Your task to perform on an android device: toggle translation in the chrome app Image 0: 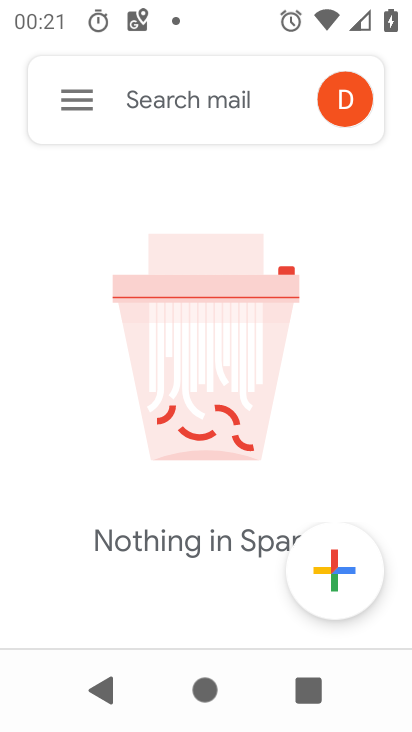
Step 0: press home button
Your task to perform on an android device: toggle translation in the chrome app Image 1: 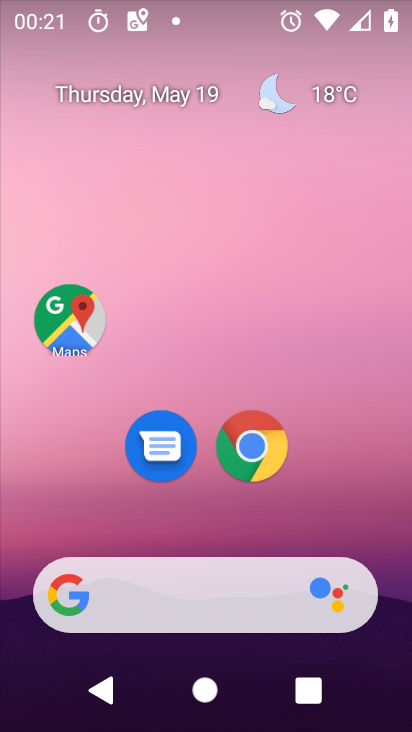
Step 1: click (244, 451)
Your task to perform on an android device: toggle translation in the chrome app Image 2: 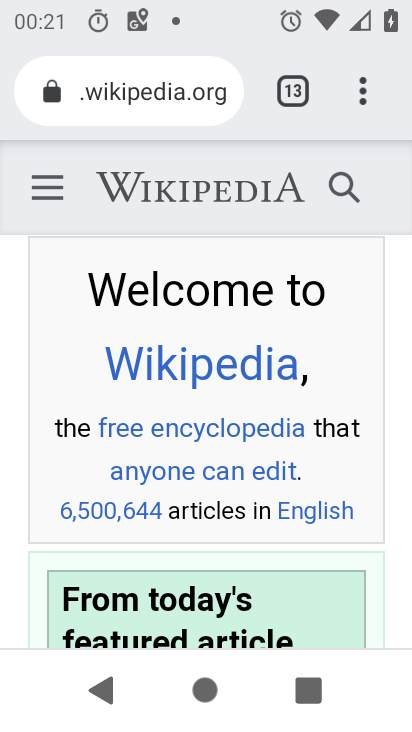
Step 2: drag from (362, 100) to (233, 485)
Your task to perform on an android device: toggle translation in the chrome app Image 3: 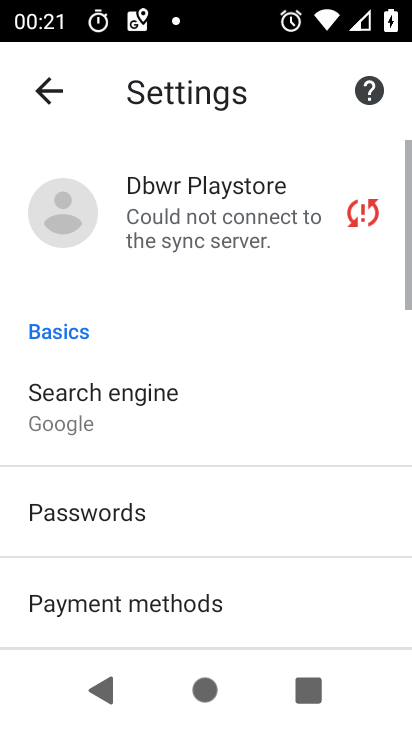
Step 3: drag from (237, 611) to (328, 295)
Your task to perform on an android device: toggle translation in the chrome app Image 4: 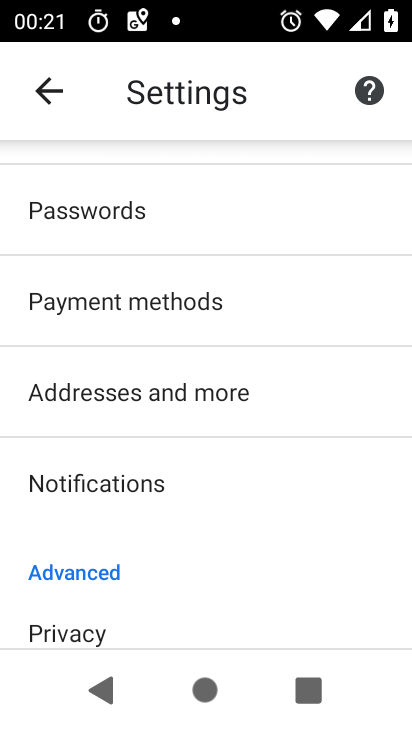
Step 4: drag from (182, 580) to (345, 88)
Your task to perform on an android device: toggle translation in the chrome app Image 5: 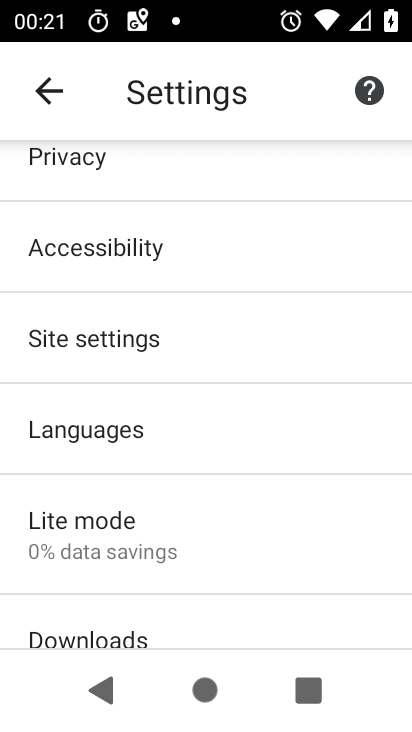
Step 5: click (139, 442)
Your task to perform on an android device: toggle translation in the chrome app Image 6: 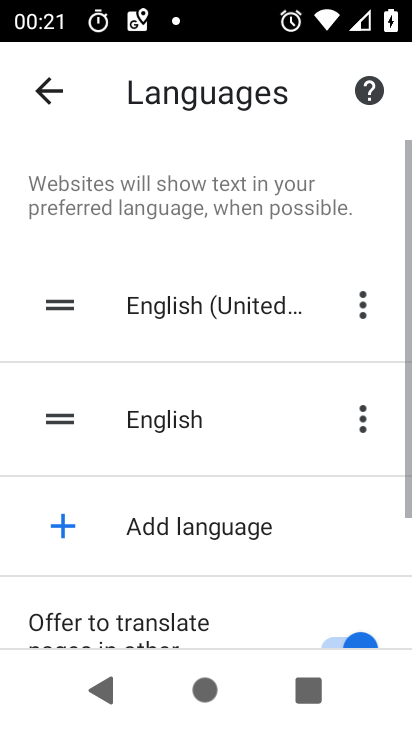
Step 6: drag from (284, 579) to (373, 177)
Your task to perform on an android device: toggle translation in the chrome app Image 7: 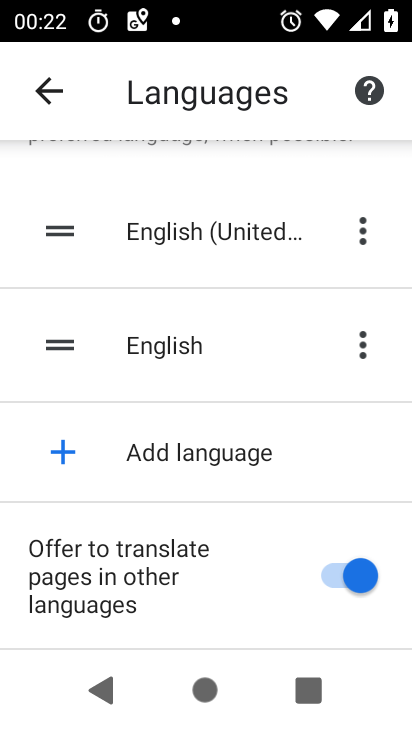
Step 7: click (335, 573)
Your task to perform on an android device: toggle translation in the chrome app Image 8: 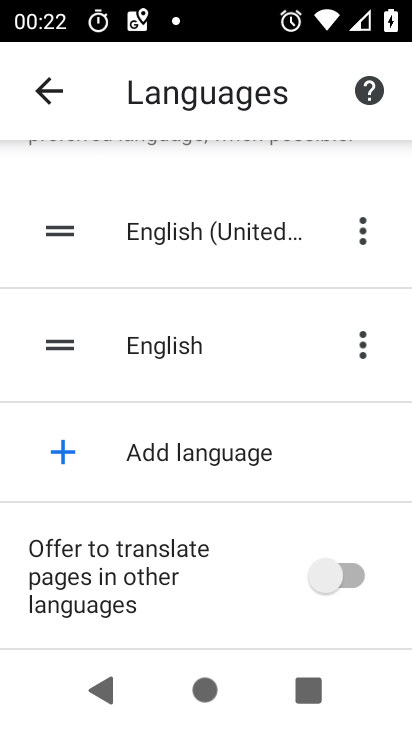
Step 8: task complete